Your task to perform on an android device: What's the weather? Image 0: 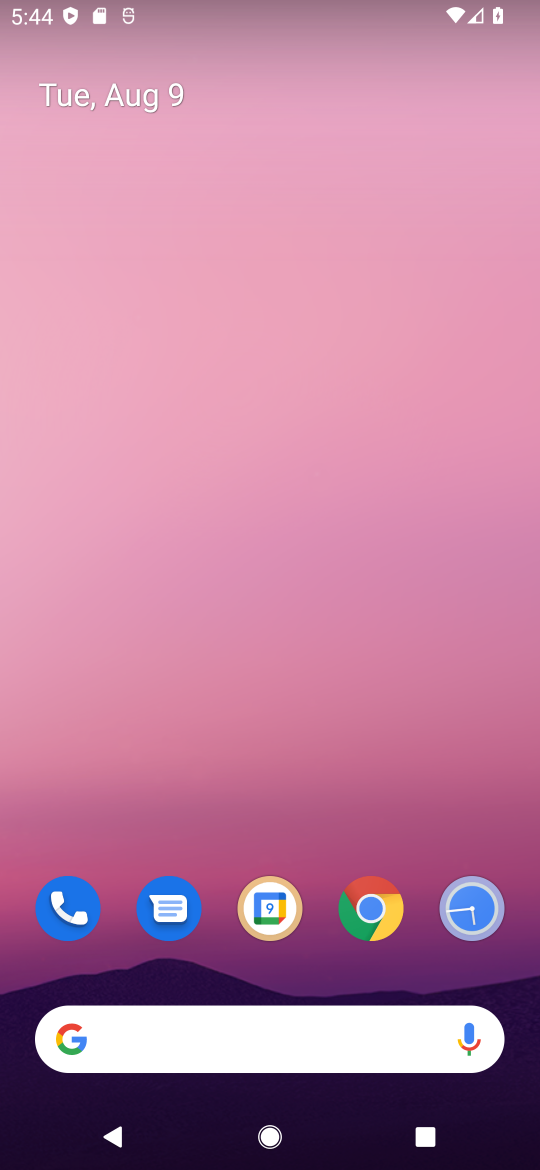
Step 0: click (268, 1031)
Your task to perform on an android device: What's the weather? Image 1: 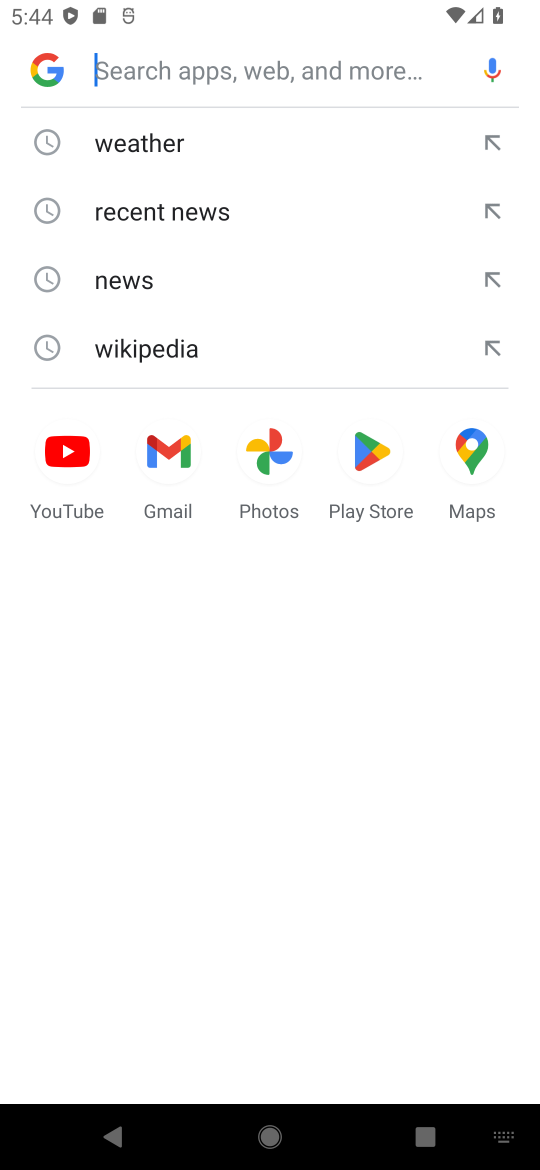
Step 1: click (159, 134)
Your task to perform on an android device: What's the weather? Image 2: 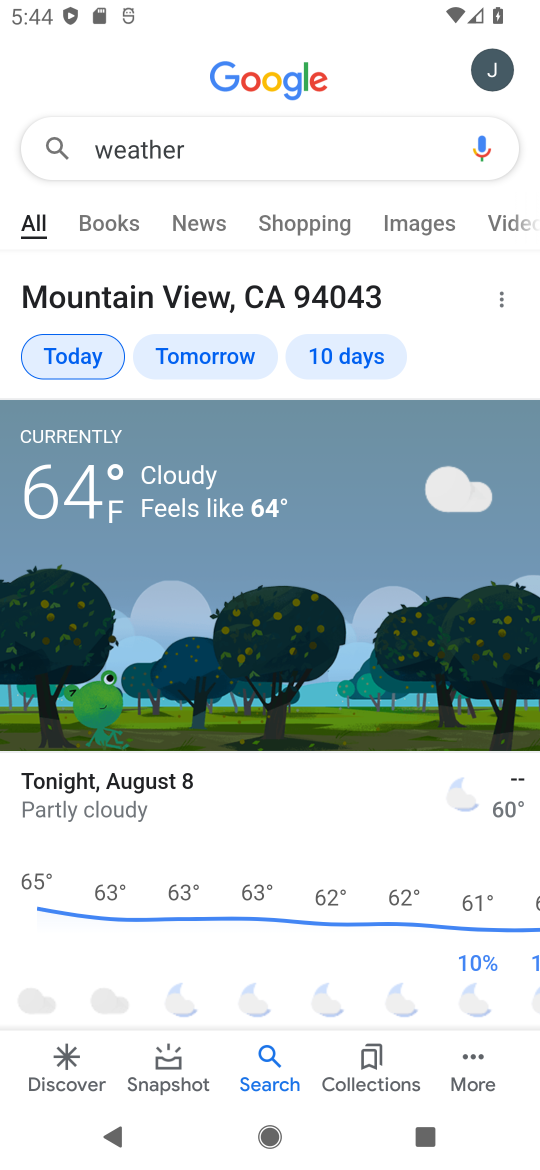
Step 2: click (84, 364)
Your task to perform on an android device: What's the weather? Image 3: 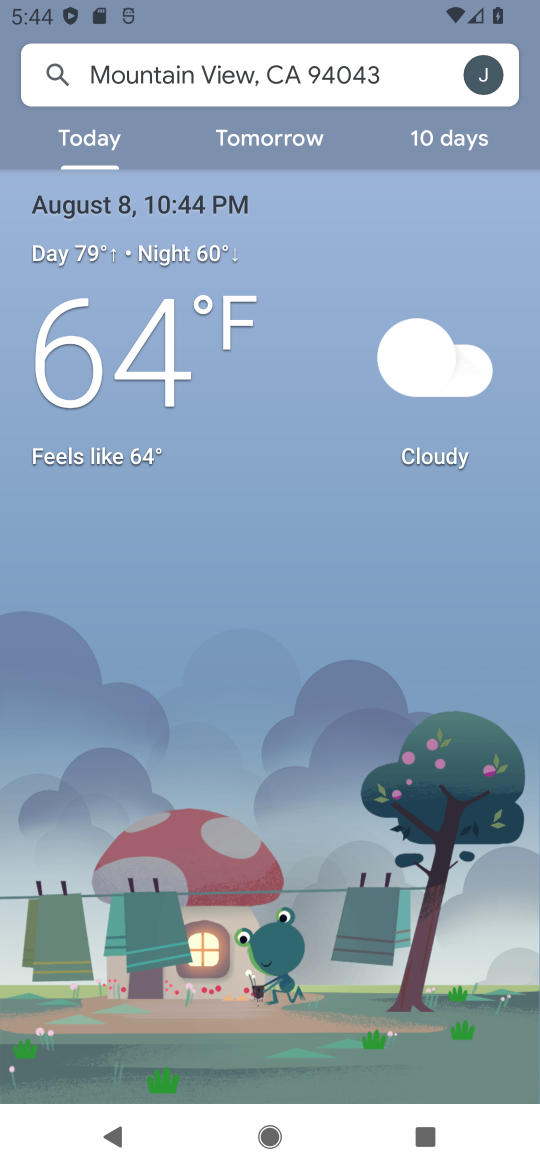
Step 3: task complete